Your task to perform on an android device: Open network settings Image 0: 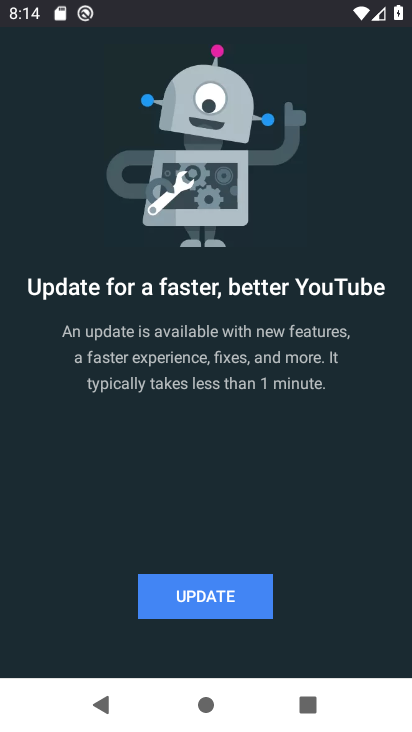
Step 0: press home button
Your task to perform on an android device: Open network settings Image 1: 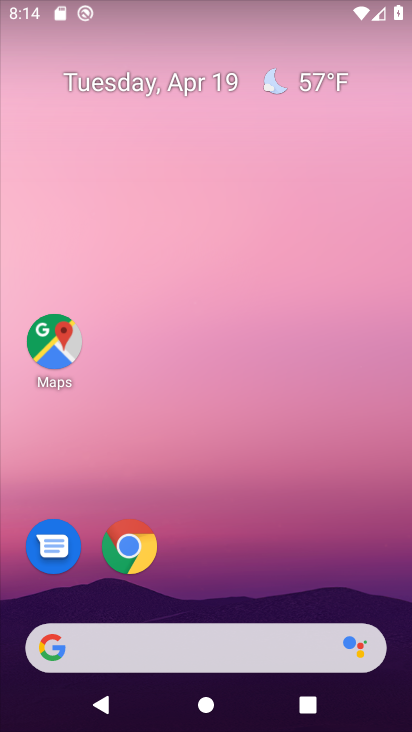
Step 1: drag from (214, 597) to (300, 9)
Your task to perform on an android device: Open network settings Image 2: 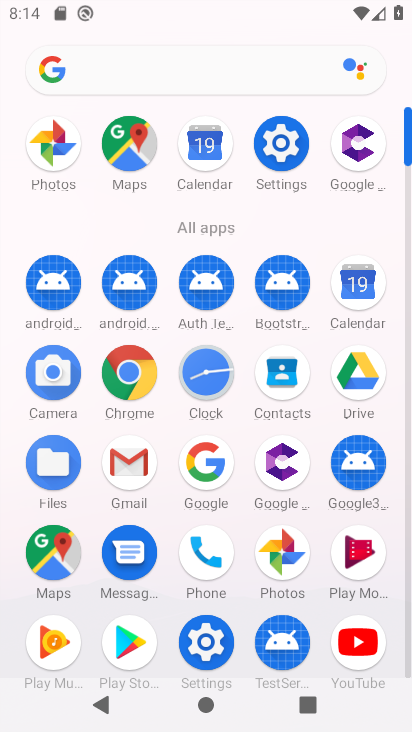
Step 2: click (281, 155)
Your task to perform on an android device: Open network settings Image 3: 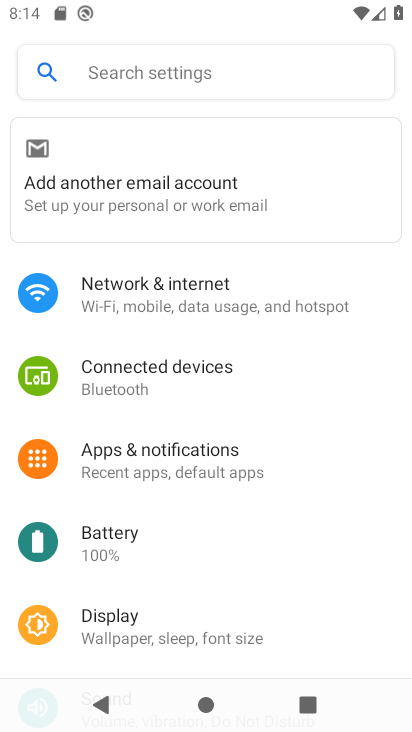
Step 3: click (200, 316)
Your task to perform on an android device: Open network settings Image 4: 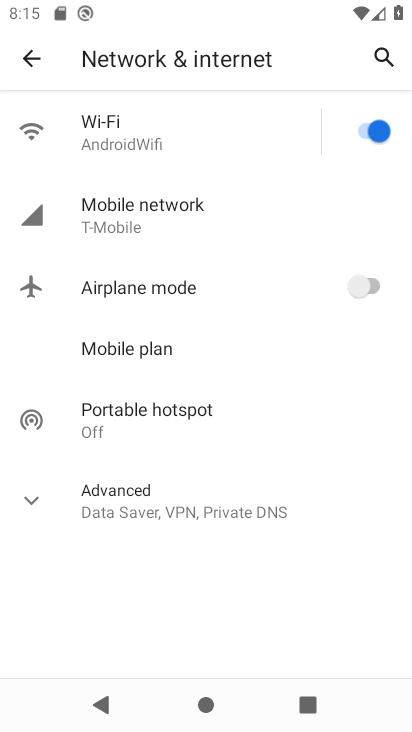
Step 4: task complete